Your task to perform on an android device: Go to sound settings Image 0: 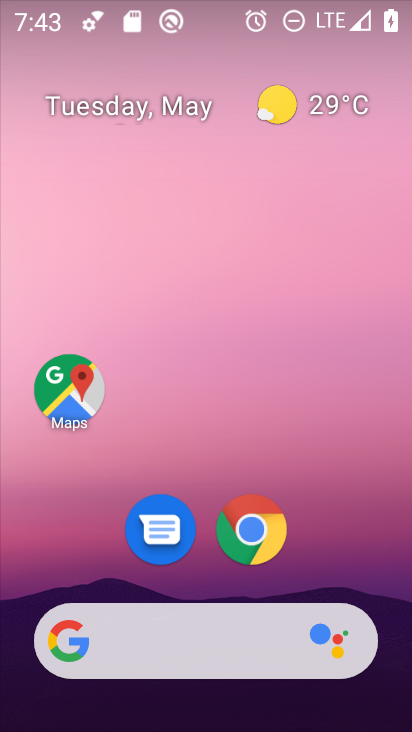
Step 0: drag from (397, 627) to (306, 131)
Your task to perform on an android device: Go to sound settings Image 1: 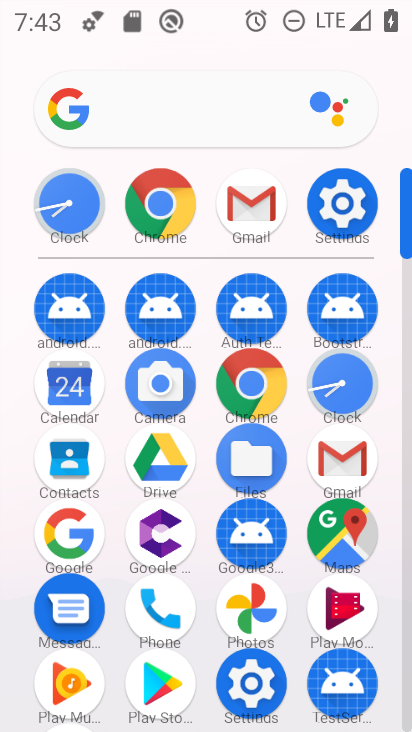
Step 1: click (237, 709)
Your task to perform on an android device: Go to sound settings Image 2: 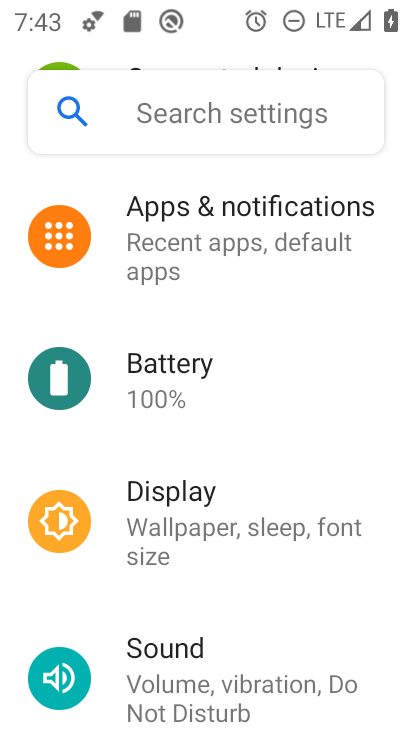
Step 2: click (227, 697)
Your task to perform on an android device: Go to sound settings Image 3: 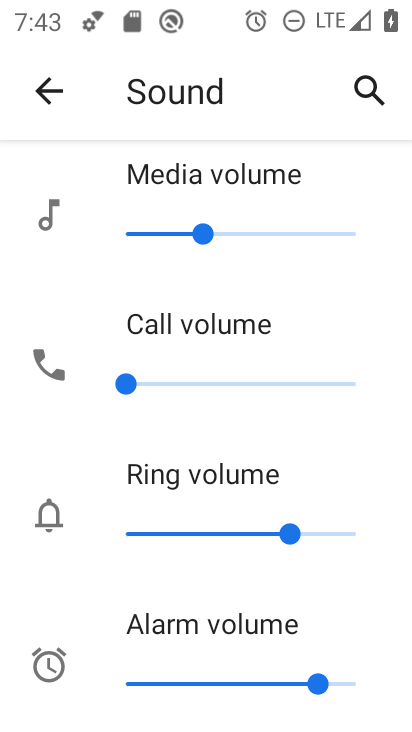
Step 3: task complete